Your task to perform on an android device: Search for "dell alienware" on newegg.com, select the first entry, add it to the cart, then select checkout. Image 0: 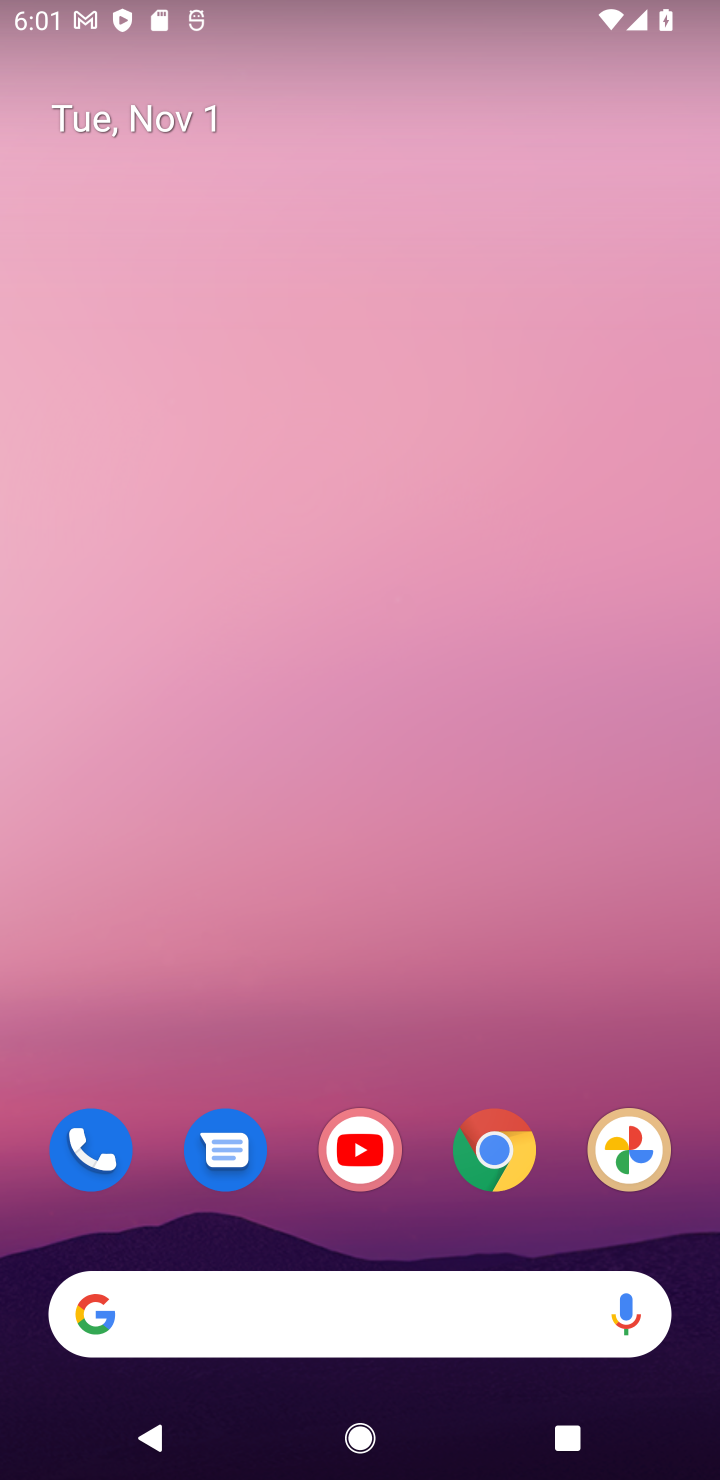
Step 0: click (498, 1163)
Your task to perform on an android device: Search for "dell alienware" on newegg.com, select the first entry, add it to the cart, then select checkout. Image 1: 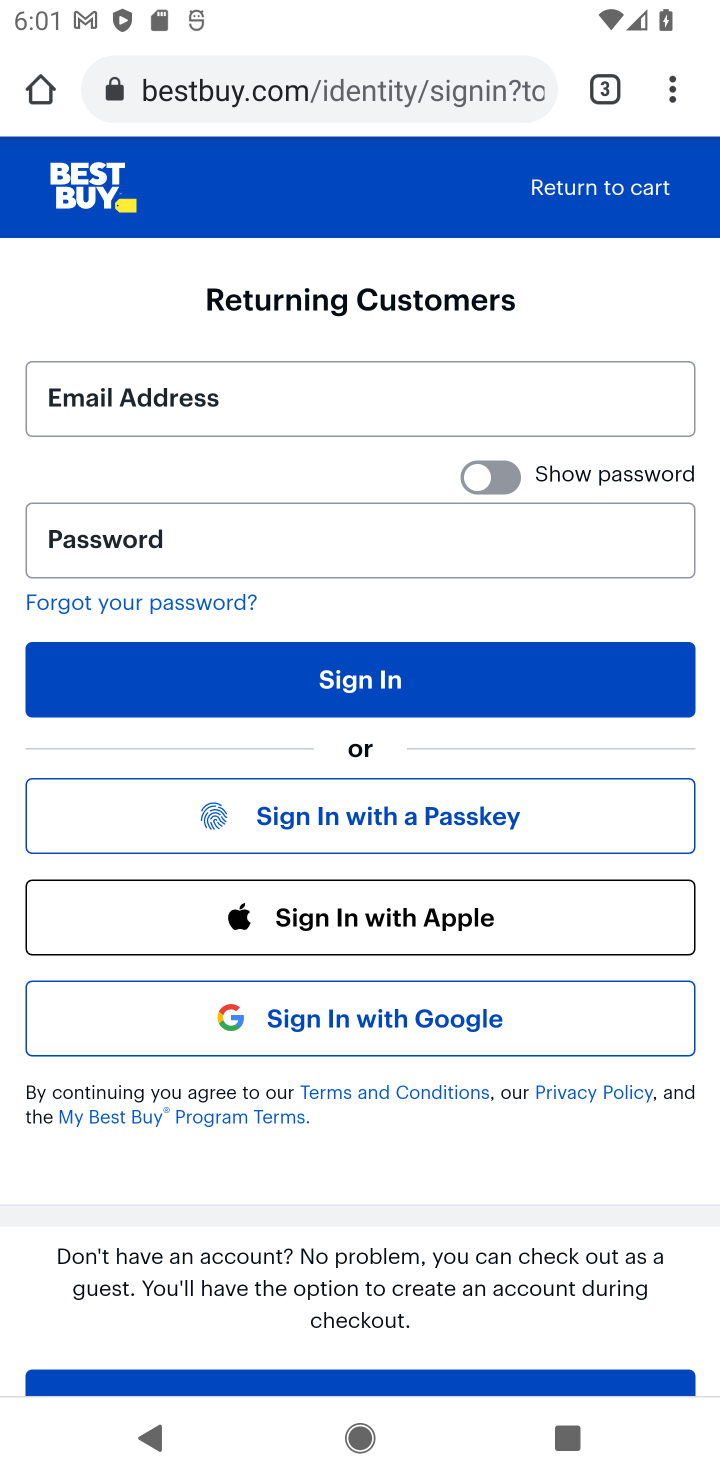
Step 1: click (601, 79)
Your task to perform on an android device: Search for "dell alienware" on newegg.com, select the first entry, add it to the cart, then select checkout. Image 2: 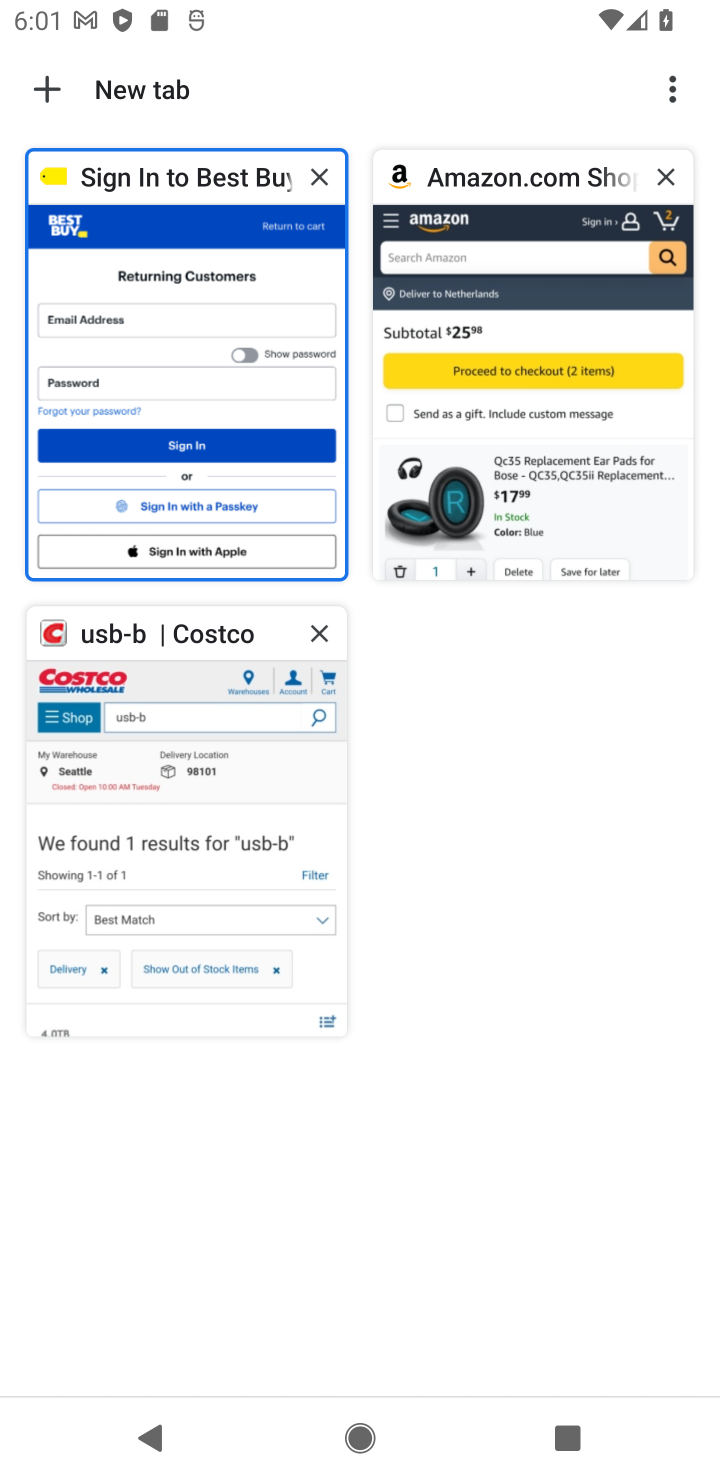
Step 2: click (53, 91)
Your task to perform on an android device: Search for "dell alienware" on newegg.com, select the first entry, add it to the cart, then select checkout. Image 3: 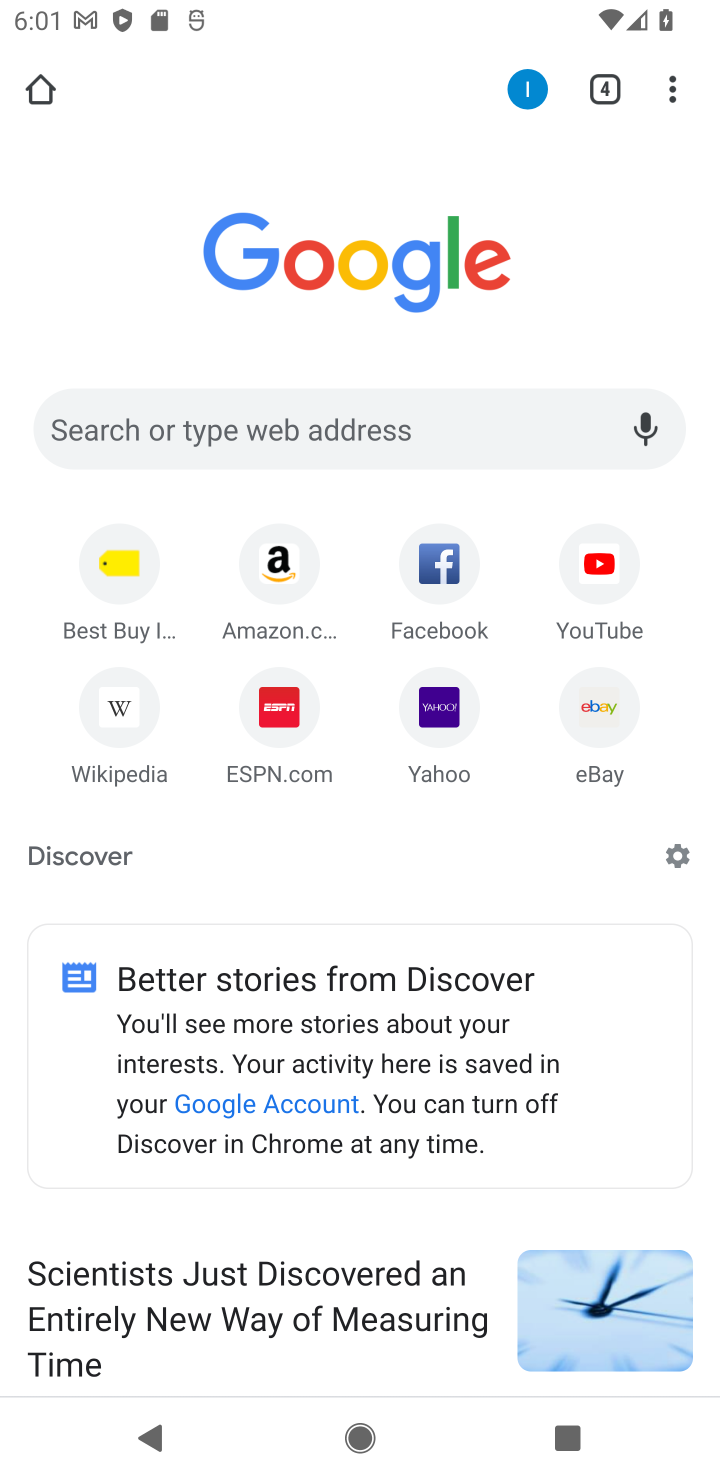
Step 3: click (549, 440)
Your task to perform on an android device: Search for "dell alienware" on newegg.com, select the first entry, add it to the cart, then select checkout. Image 4: 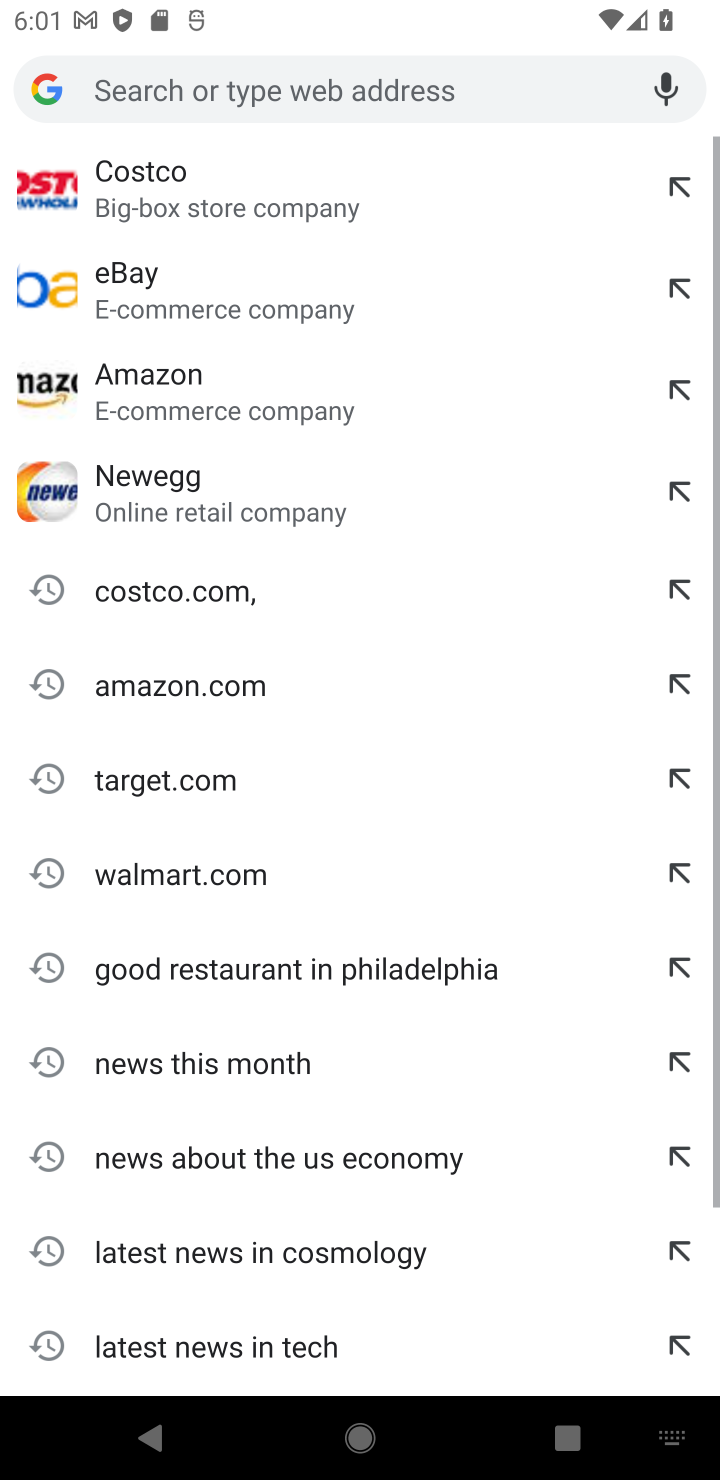
Step 4: type "newegg"
Your task to perform on an android device: Search for "dell alienware" on newegg.com, select the first entry, add it to the cart, then select checkout. Image 5: 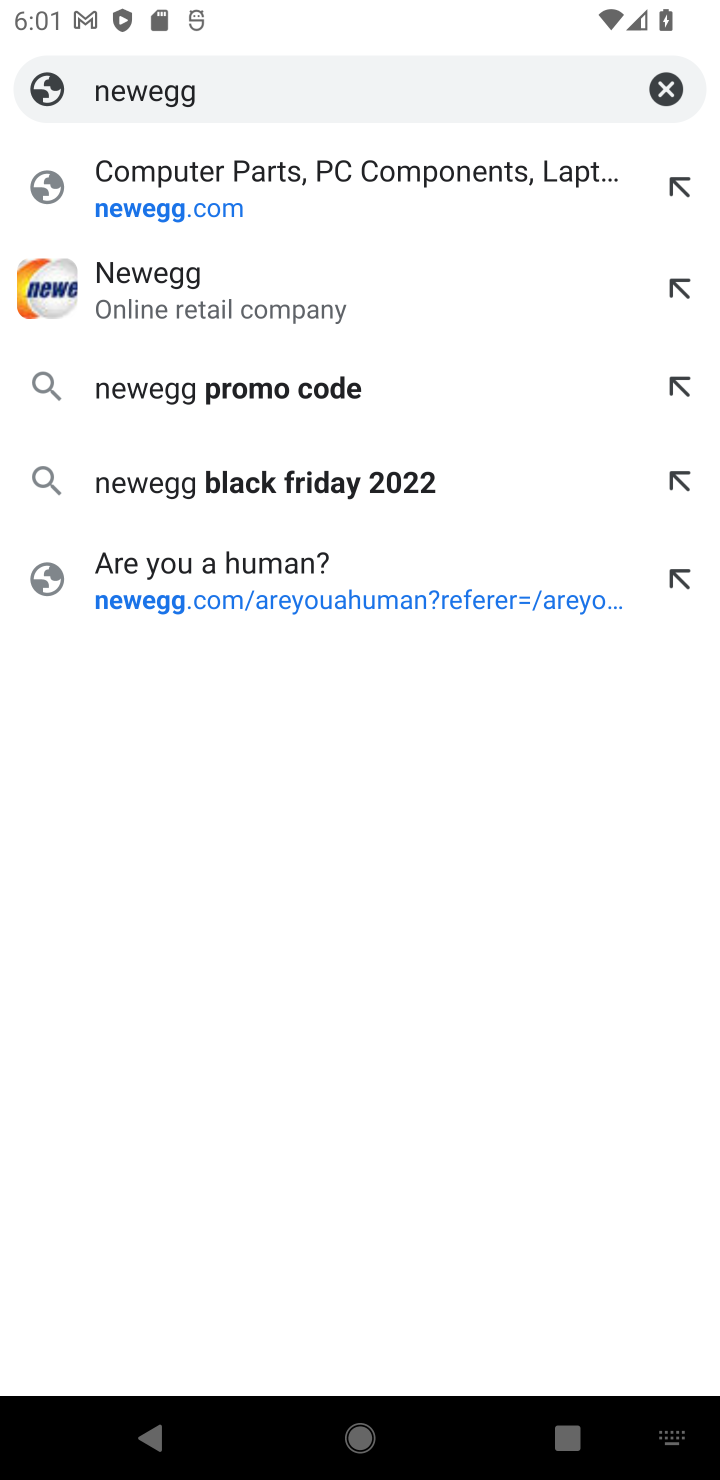
Step 5: click (181, 282)
Your task to perform on an android device: Search for "dell alienware" on newegg.com, select the first entry, add it to the cart, then select checkout. Image 6: 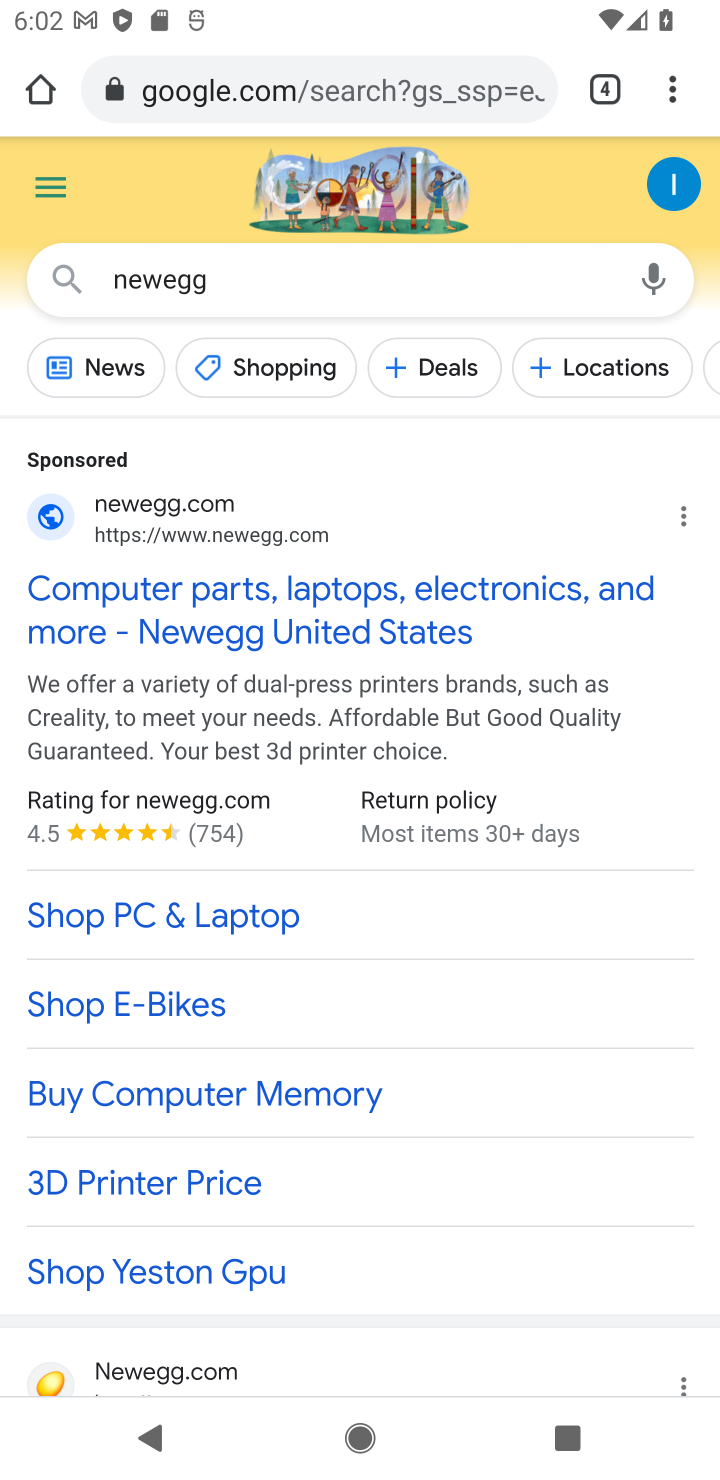
Step 6: drag from (339, 1243) to (533, 581)
Your task to perform on an android device: Search for "dell alienware" on newegg.com, select the first entry, add it to the cart, then select checkout. Image 7: 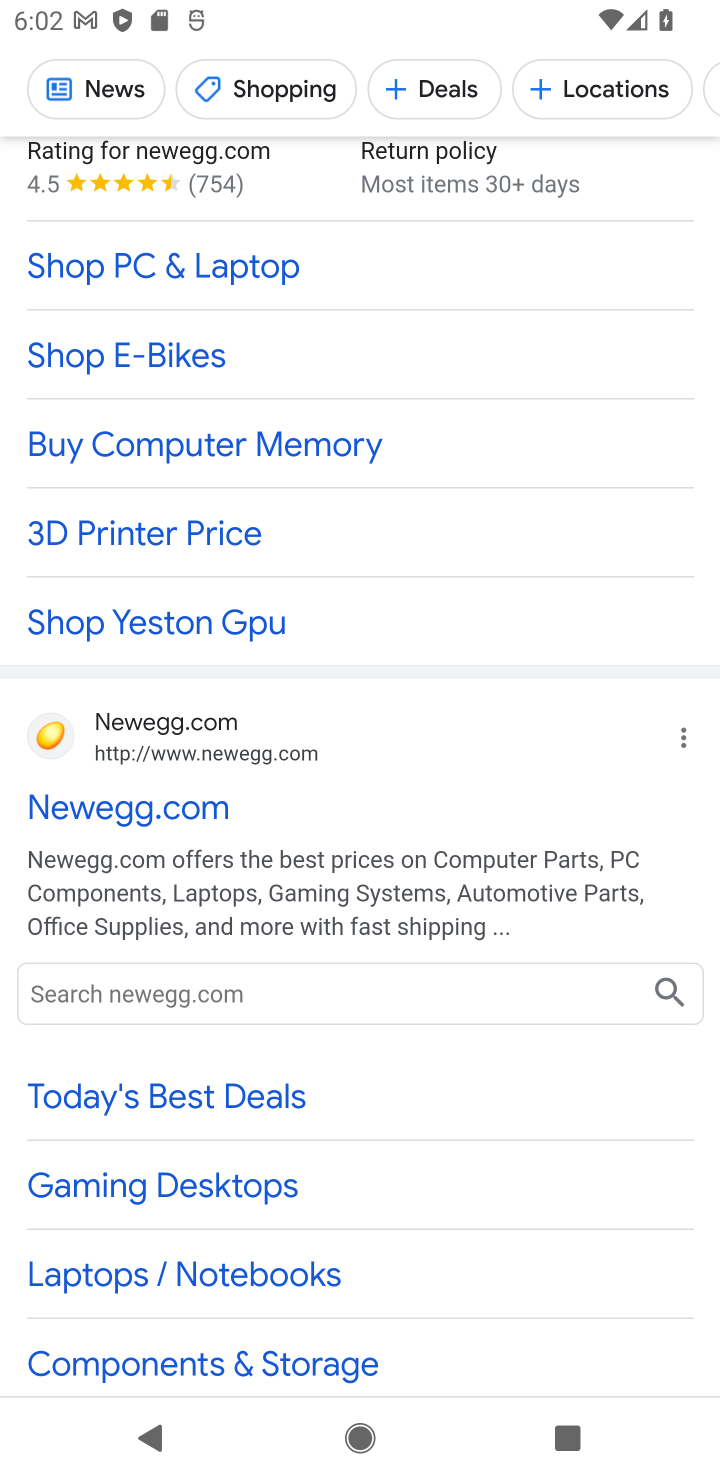
Step 7: click (214, 985)
Your task to perform on an android device: Search for "dell alienware" on newegg.com, select the first entry, add it to the cart, then select checkout. Image 8: 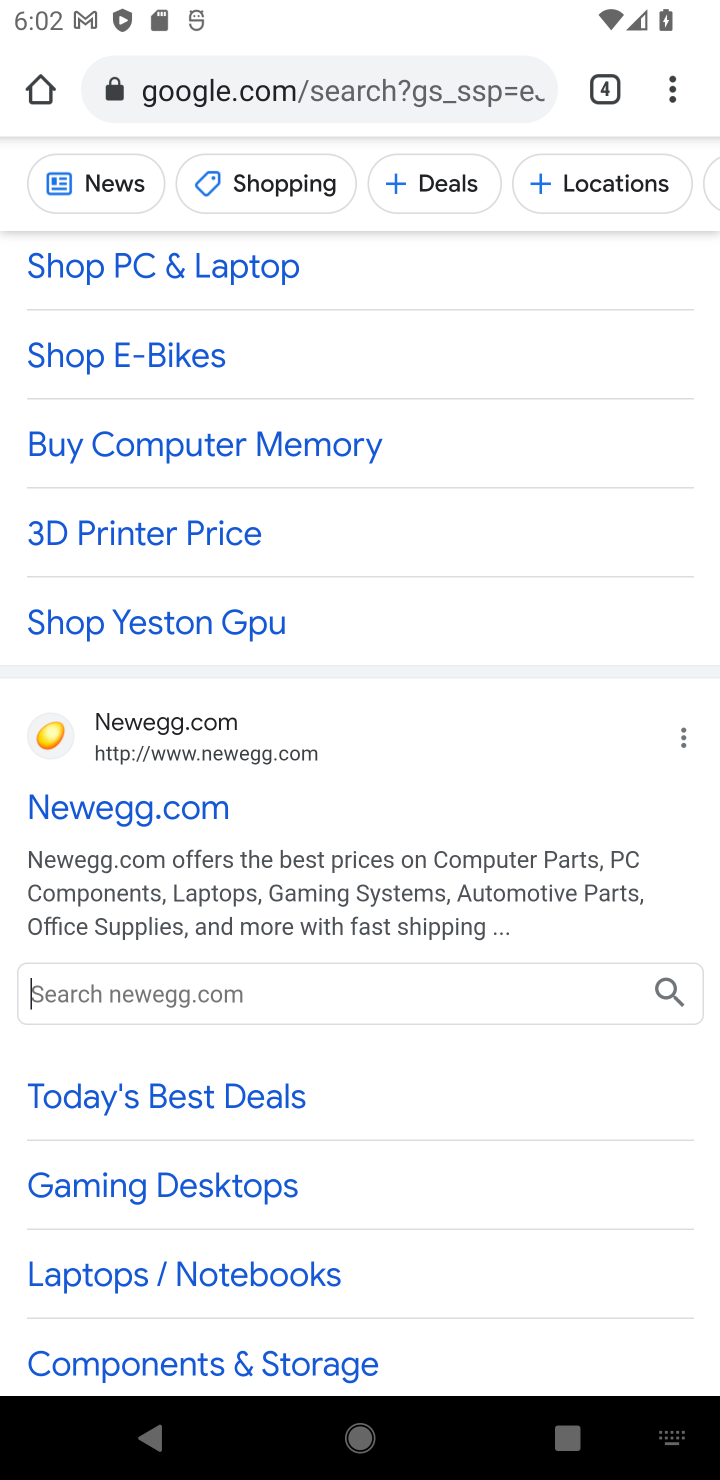
Step 8: type "dell alienware"
Your task to perform on an android device: Search for "dell alienware" on newegg.com, select the first entry, add it to the cart, then select checkout. Image 9: 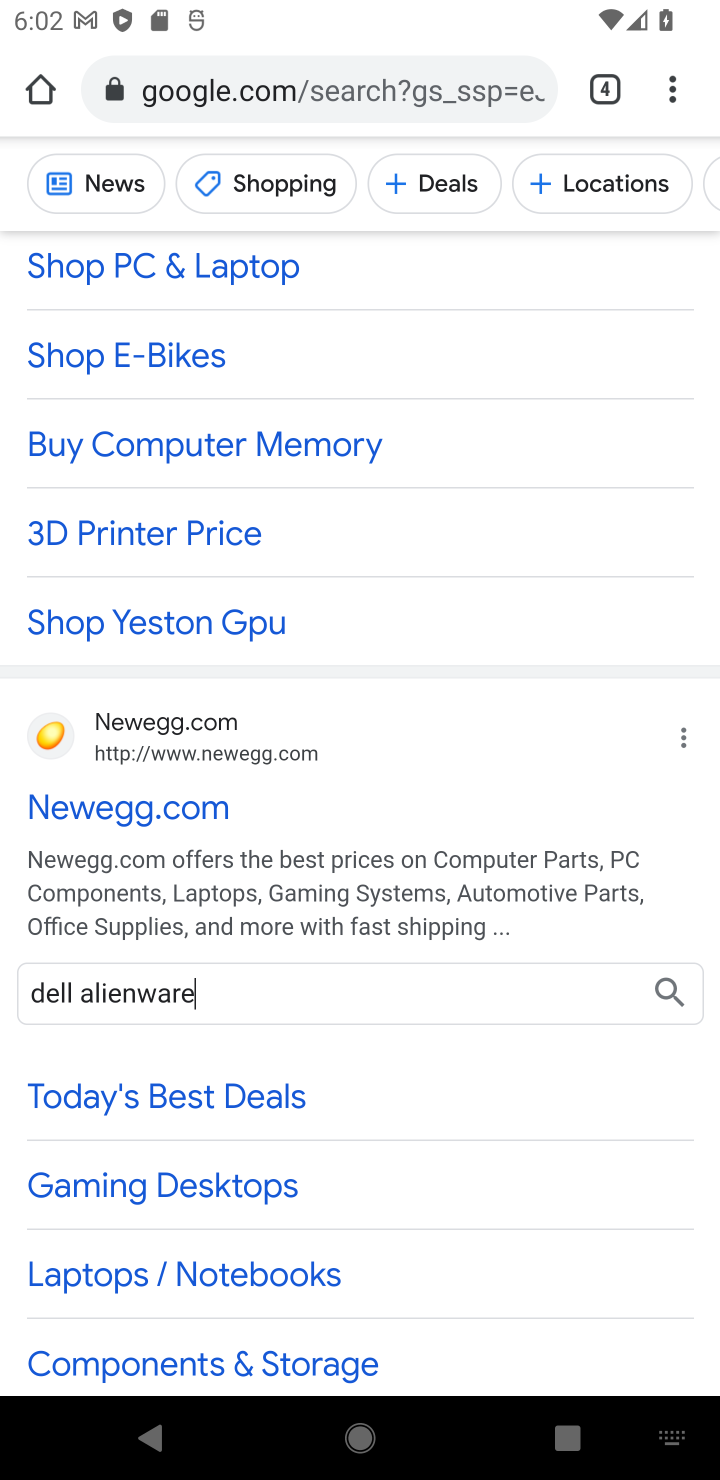
Step 9: click (673, 989)
Your task to perform on an android device: Search for "dell alienware" on newegg.com, select the first entry, add it to the cart, then select checkout. Image 10: 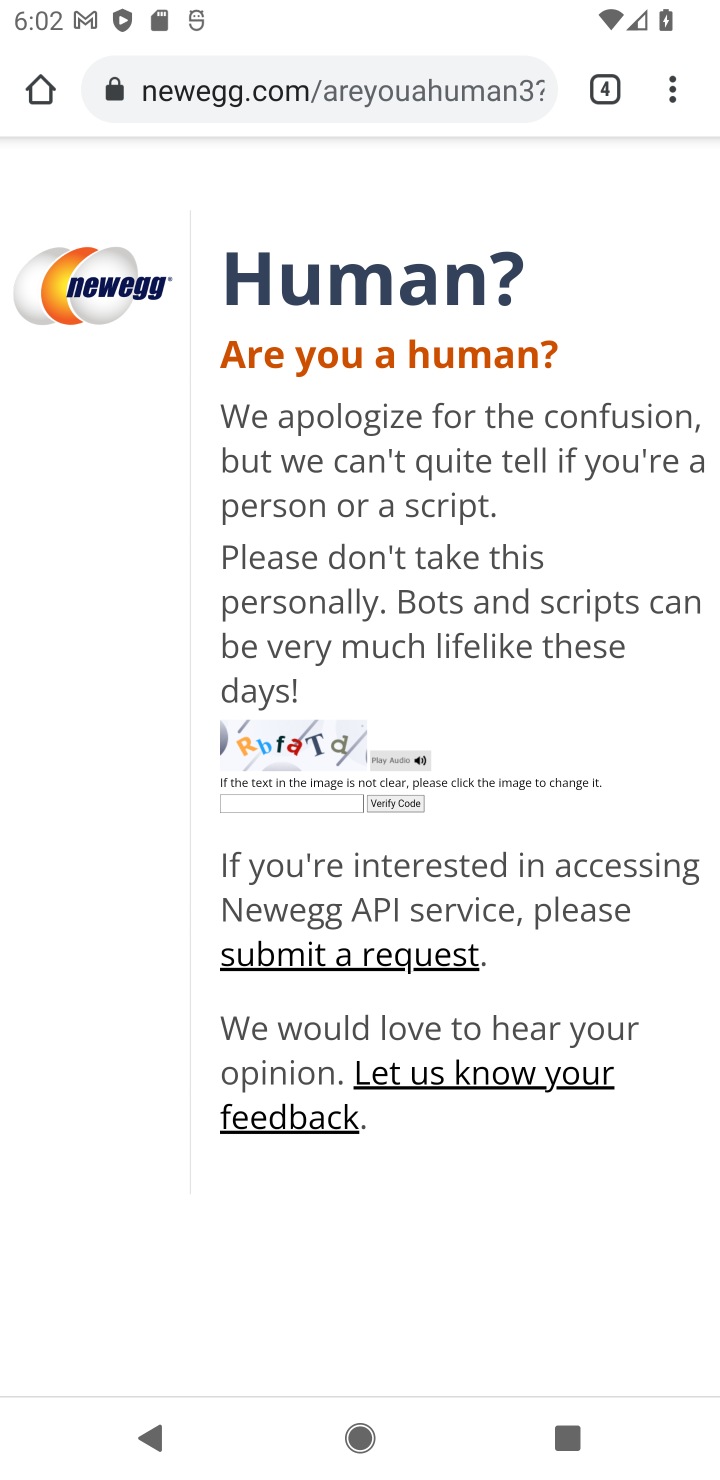
Step 10: click (321, 806)
Your task to perform on an android device: Search for "dell alienware" on newegg.com, select the first entry, add it to the cart, then select checkout. Image 11: 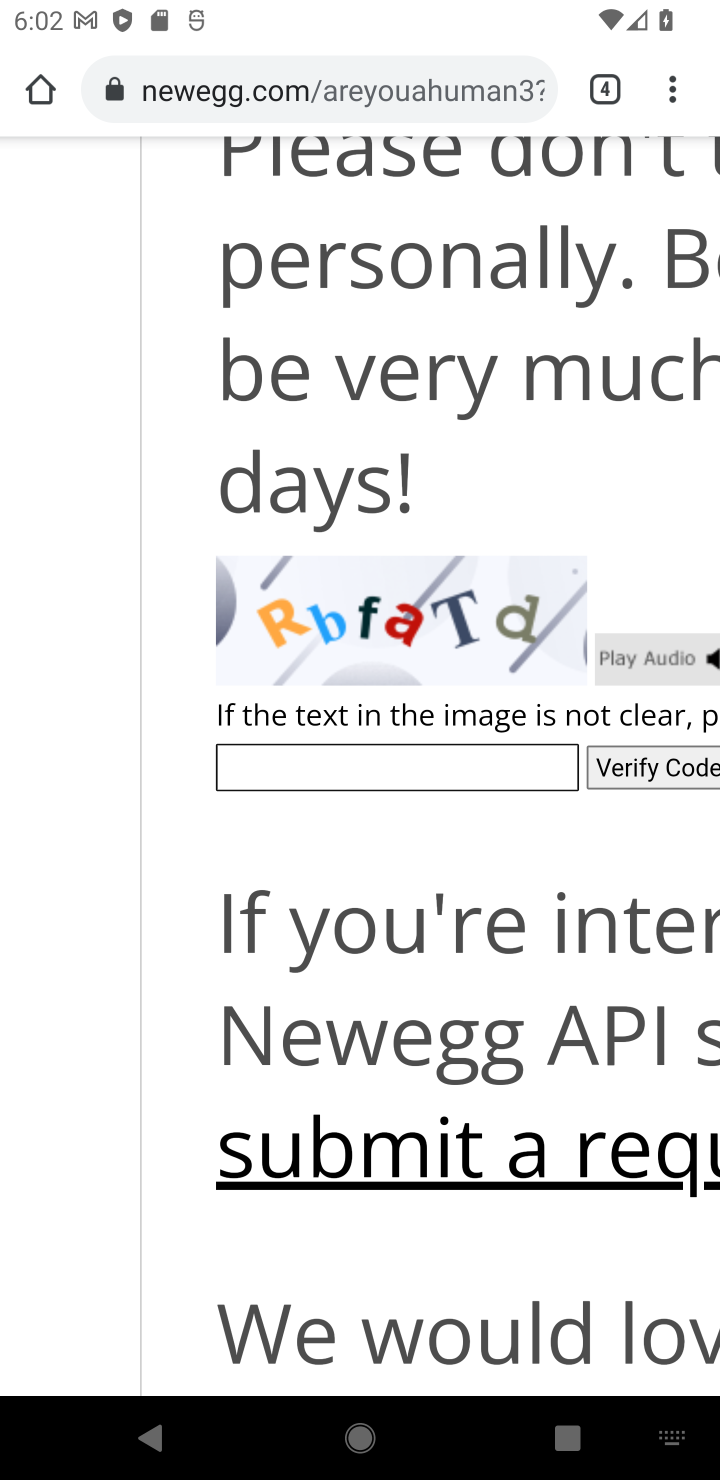
Step 11: type "RbfaTd"
Your task to perform on an android device: Search for "dell alienware" on newegg.com, select the first entry, add it to the cart, then select checkout. Image 12: 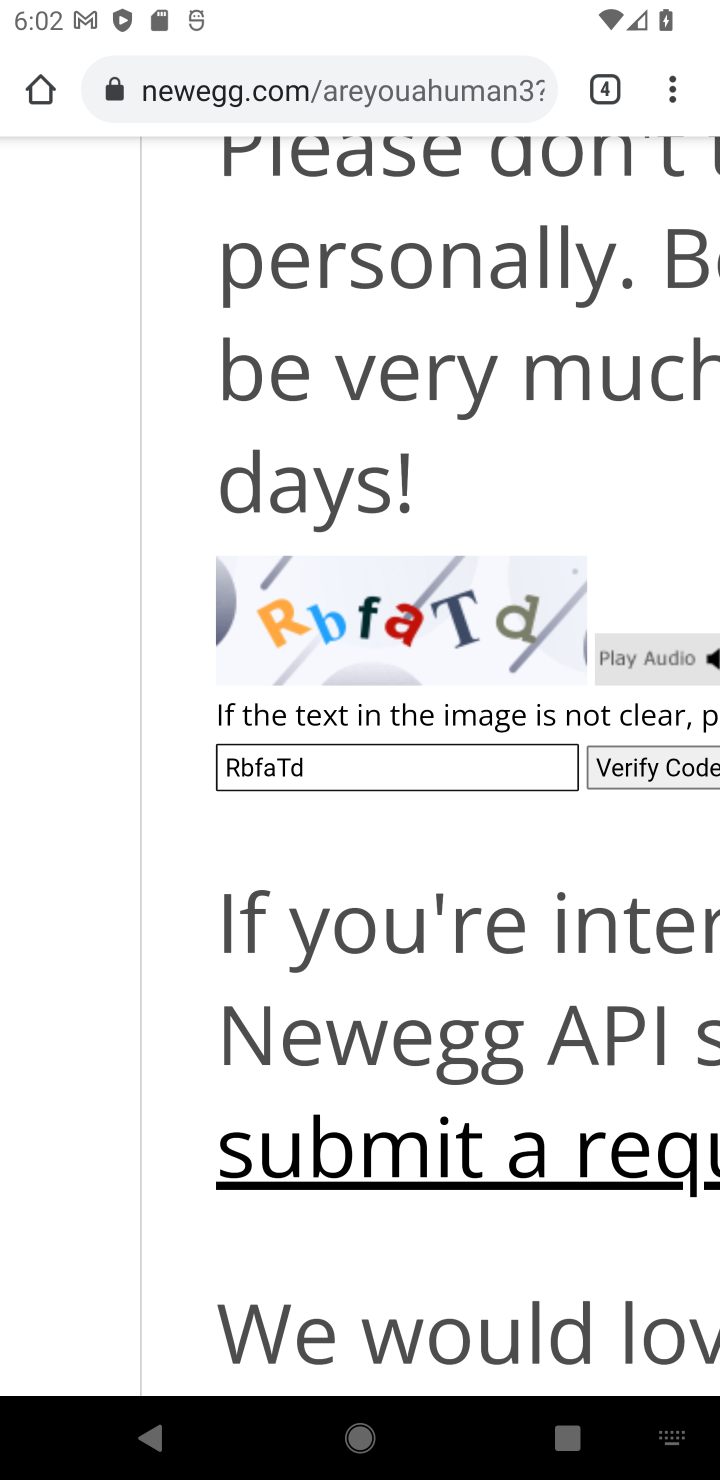
Step 12: click (665, 766)
Your task to perform on an android device: Search for "dell alienware" on newegg.com, select the first entry, add it to the cart, then select checkout. Image 13: 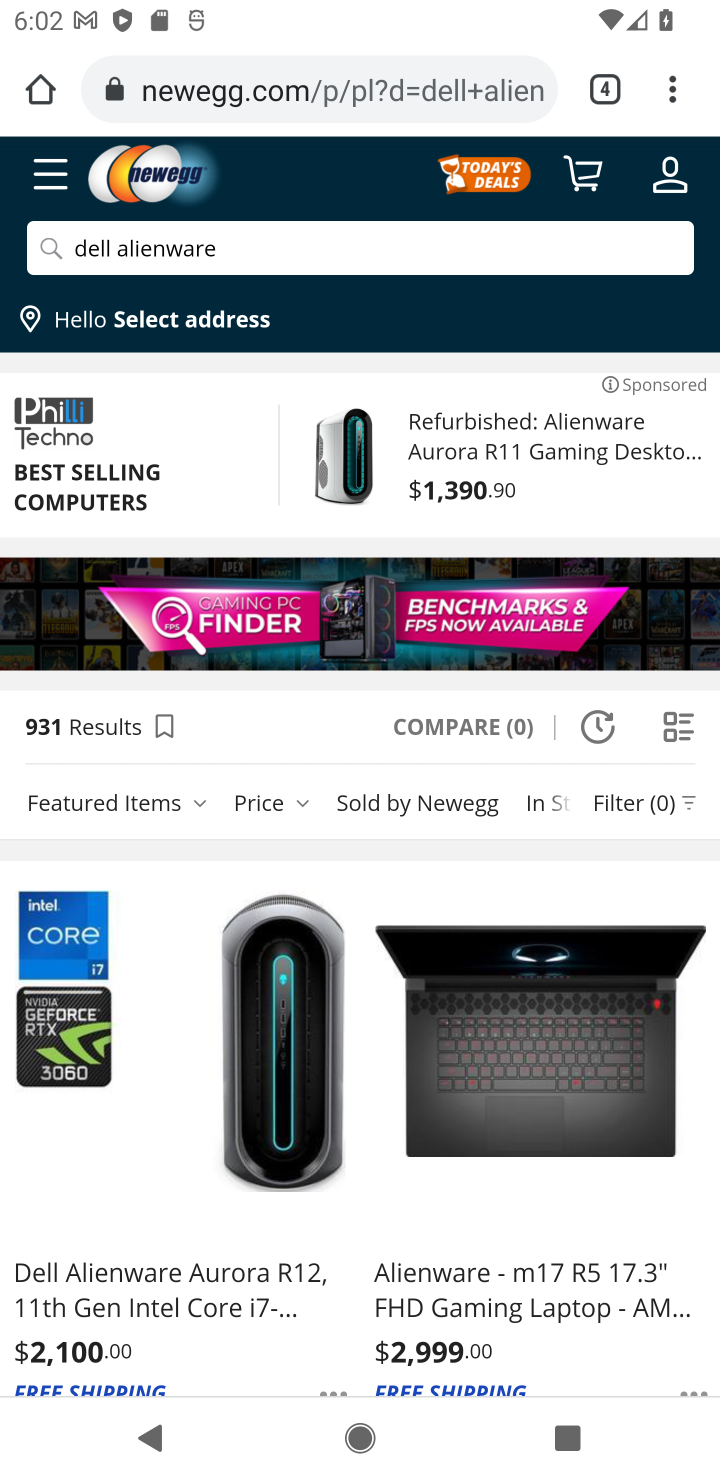
Step 13: click (183, 1295)
Your task to perform on an android device: Search for "dell alienware" on newegg.com, select the first entry, add it to the cart, then select checkout. Image 14: 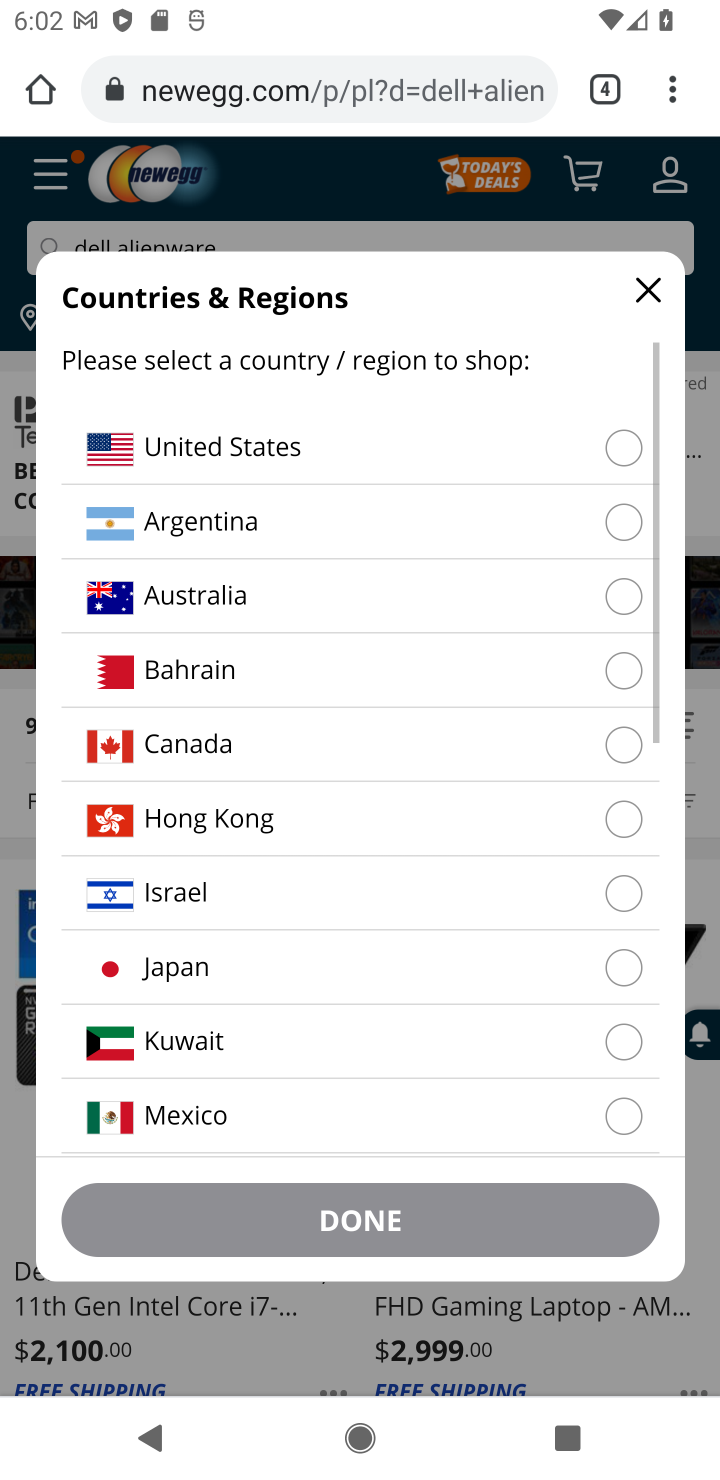
Step 14: click (624, 434)
Your task to perform on an android device: Search for "dell alienware" on newegg.com, select the first entry, add it to the cart, then select checkout. Image 15: 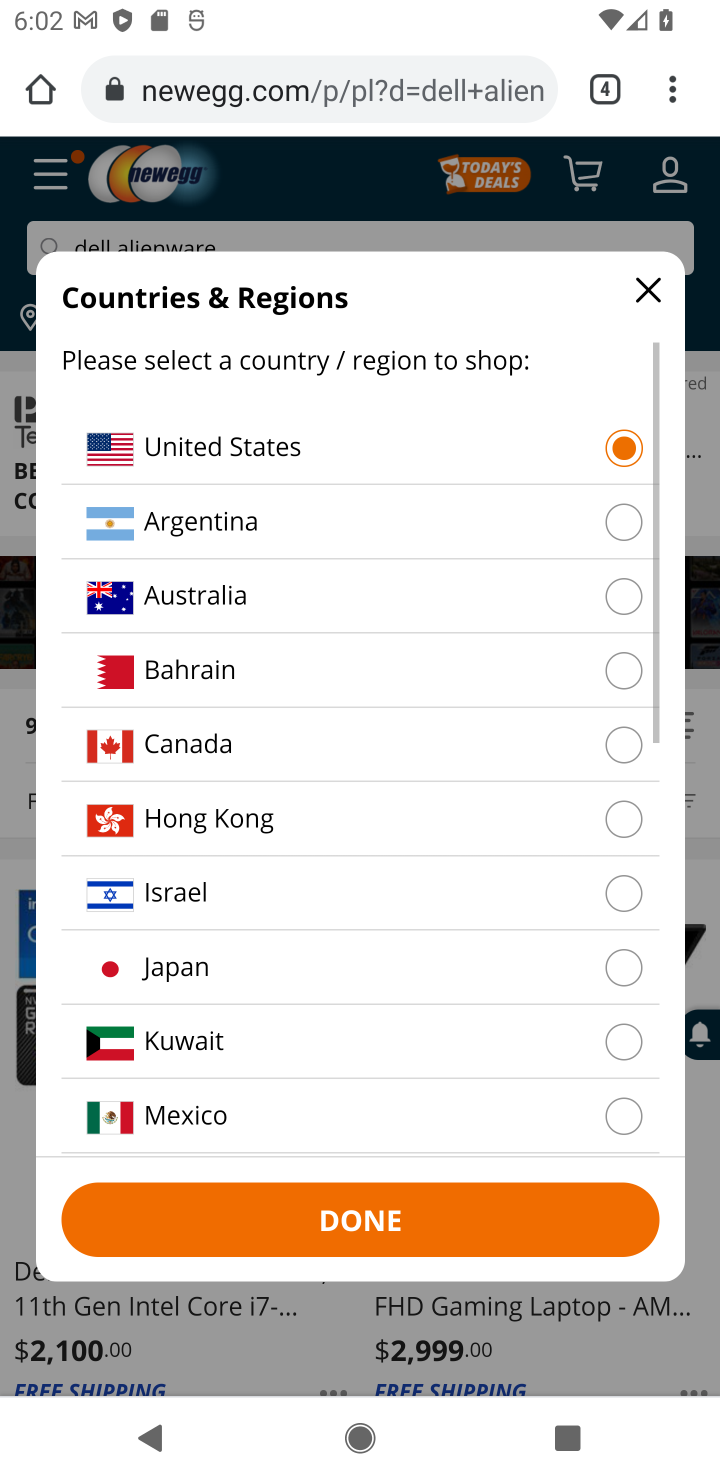
Step 15: click (361, 1228)
Your task to perform on an android device: Search for "dell alienware" on newegg.com, select the first entry, add it to the cart, then select checkout. Image 16: 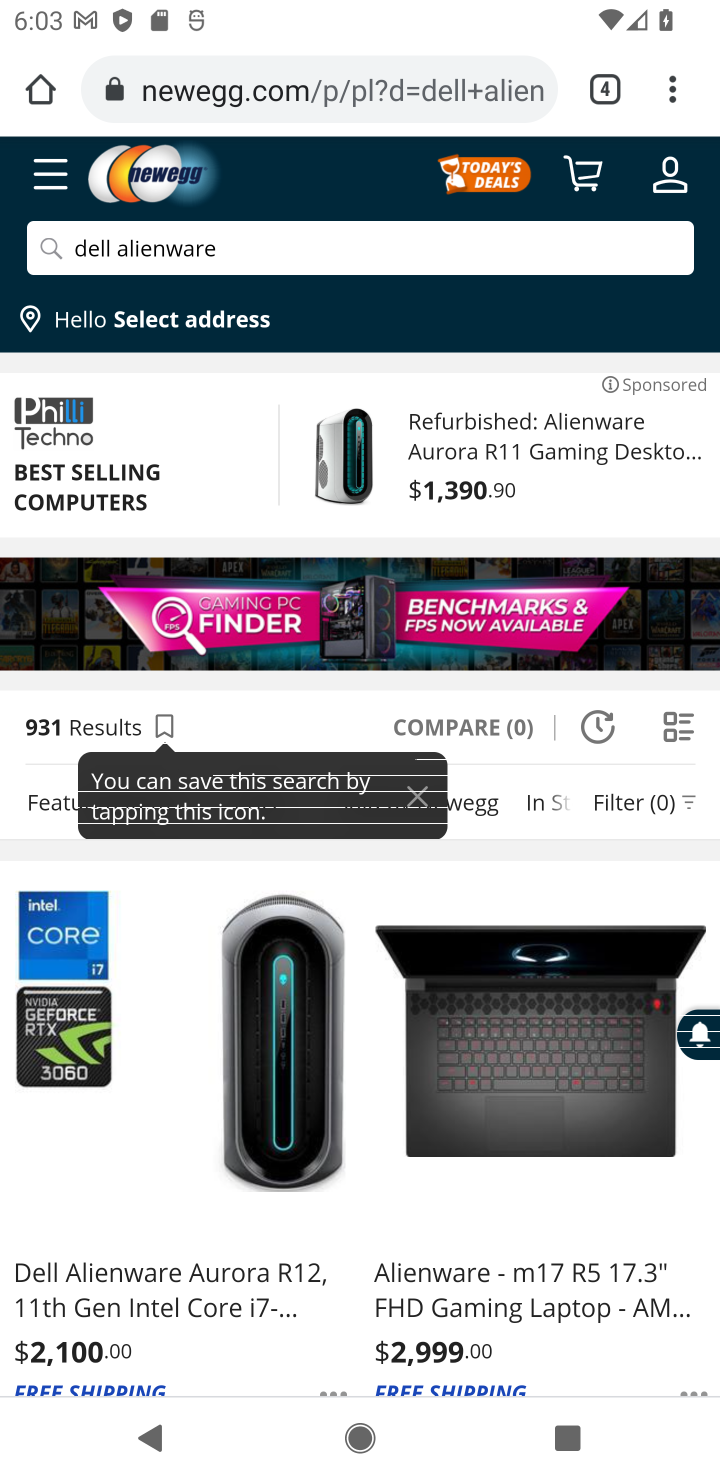
Step 16: click (207, 1279)
Your task to perform on an android device: Search for "dell alienware" on newegg.com, select the first entry, add it to the cart, then select checkout. Image 17: 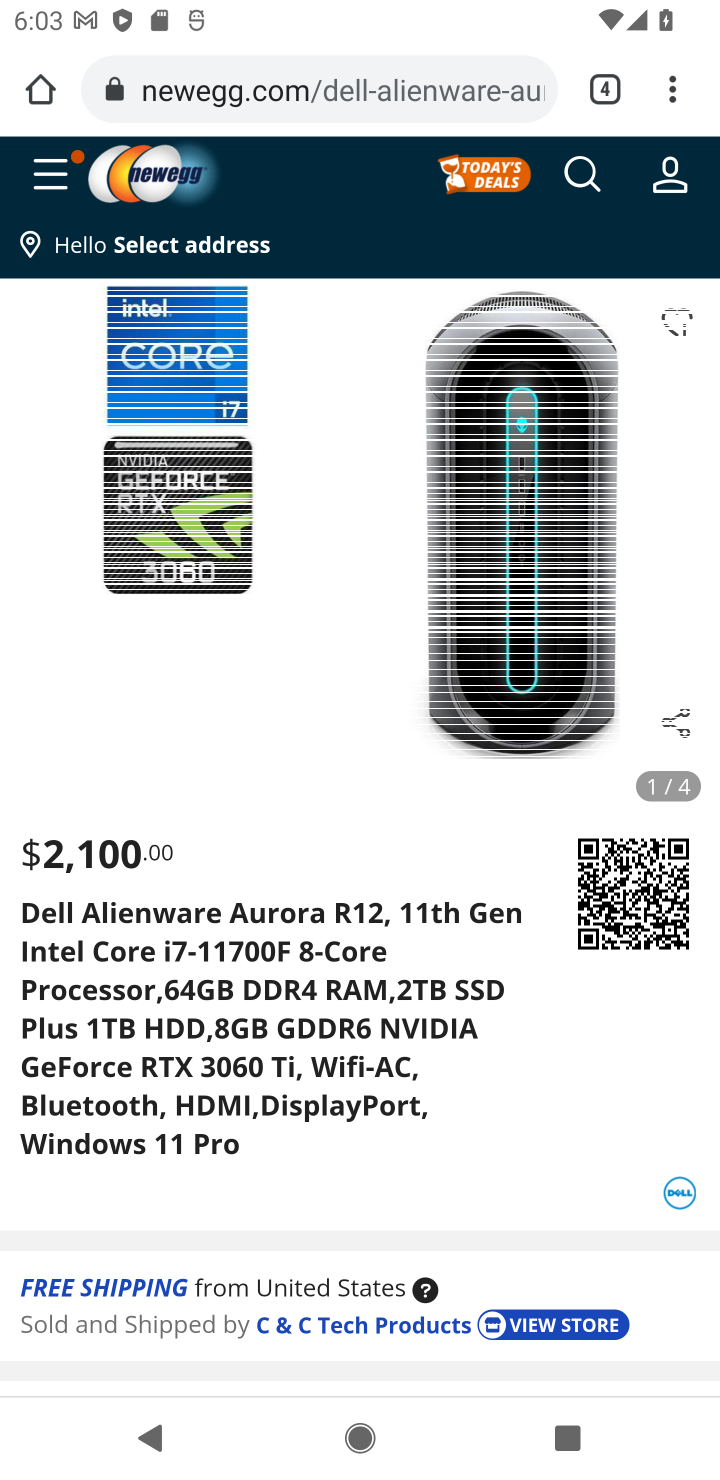
Step 17: click (283, 1348)
Your task to perform on an android device: Search for "dell alienware" on newegg.com, select the first entry, add it to the cart, then select checkout. Image 18: 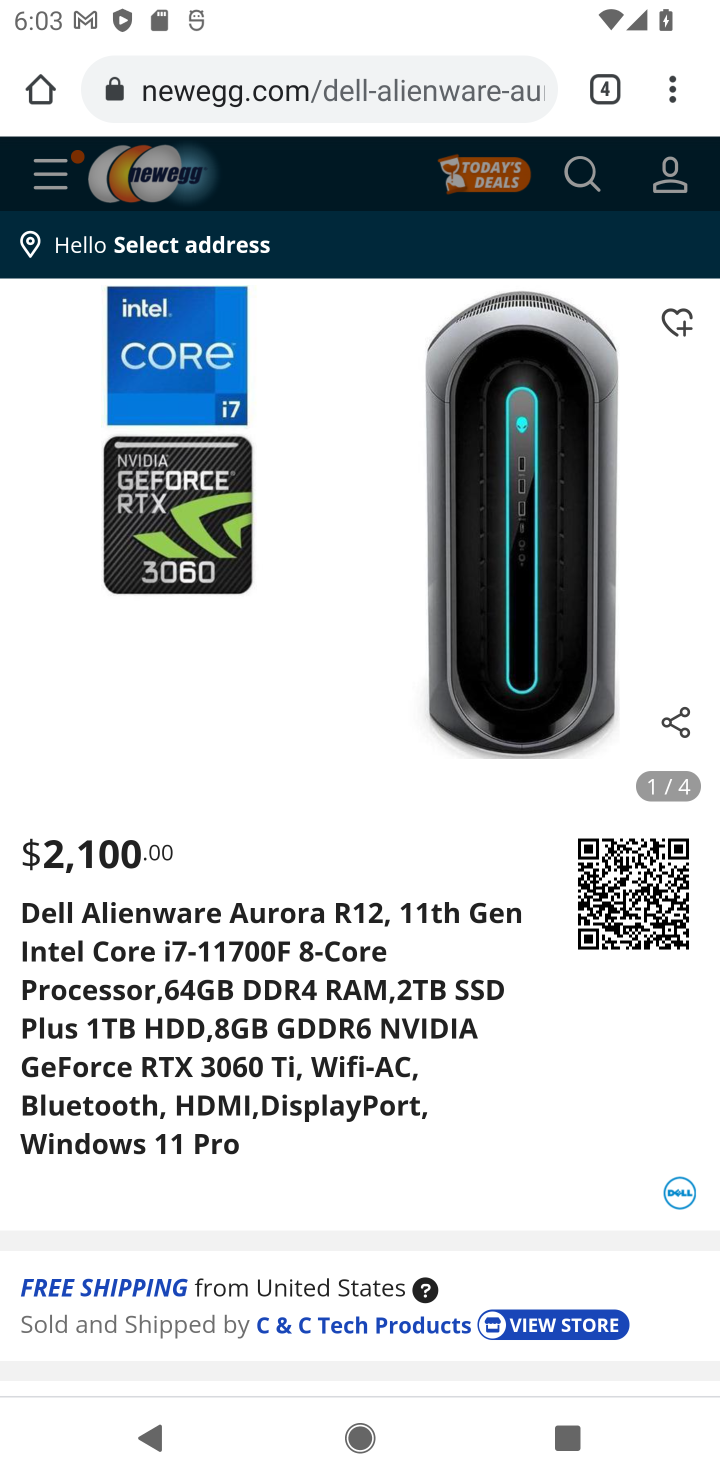
Step 18: click (29, 1351)
Your task to perform on an android device: Search for "dell alienware" on newegg.com, select the first entry, add it to the cart, then select checkout. Image 19: 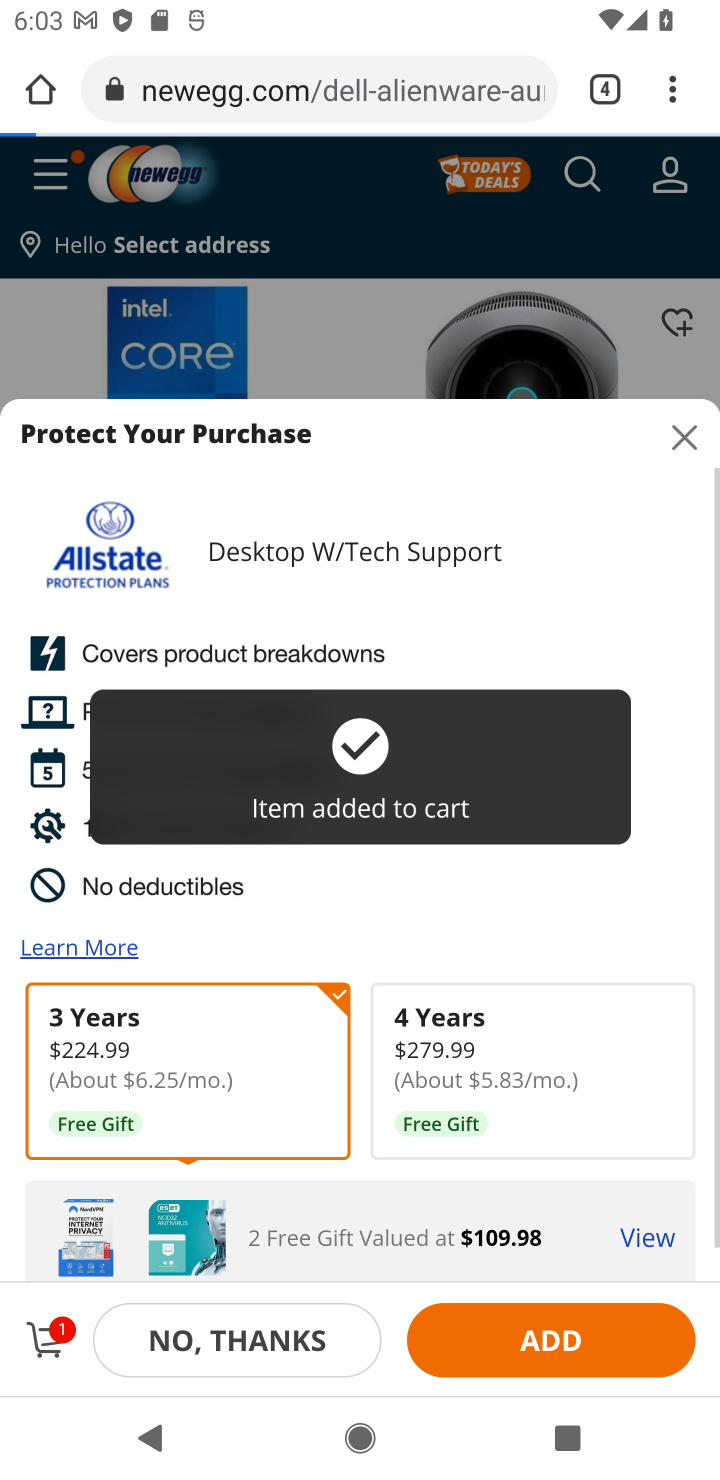
Step 19: click (29, 1351)
Your task to perform on an android device: Search for "dell alienware" on newegg.com, select the first entry, add it to the cart, then select checkout. Image 20: 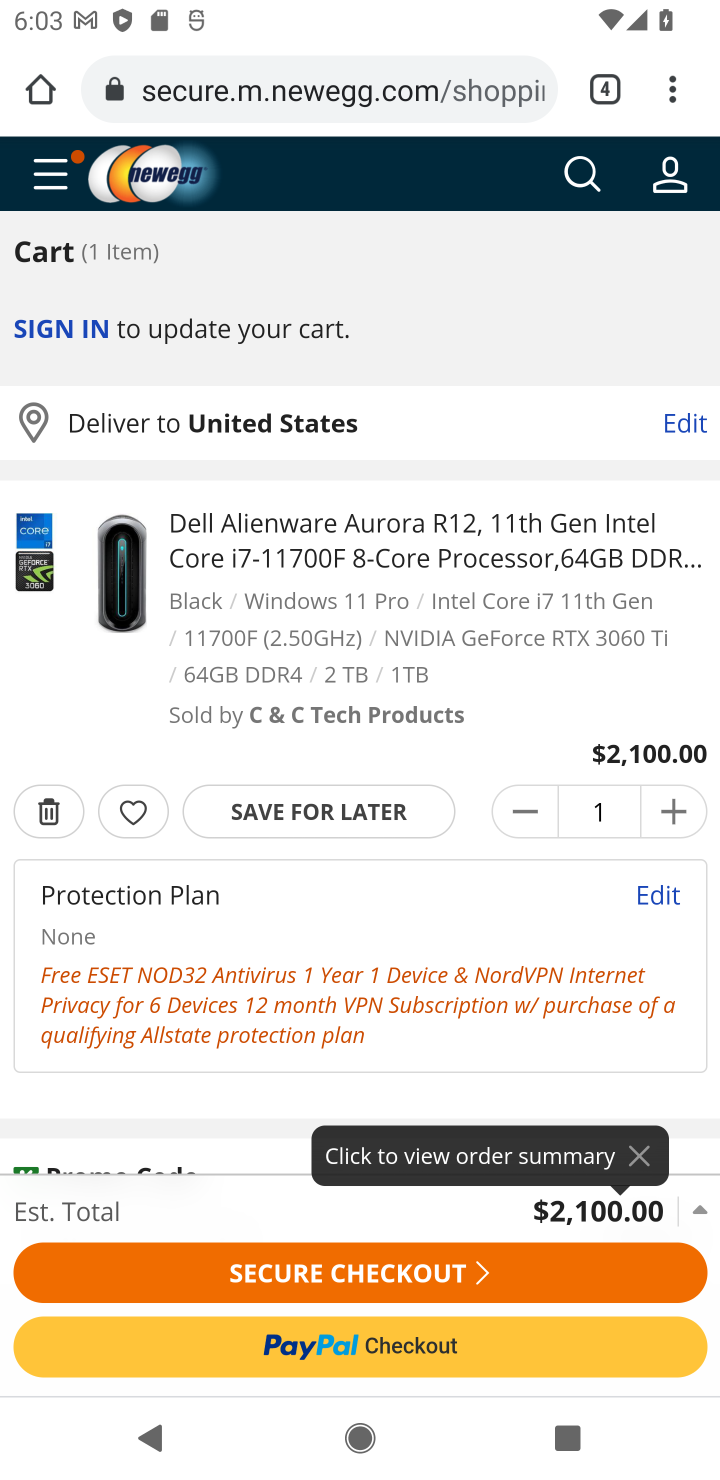
Step 20: click (412, 1287)
Your task to perform on an android device: Search for "dell alienware" on newegg.com, select the first entry, add it to the cart, then select checkout. Image 21: 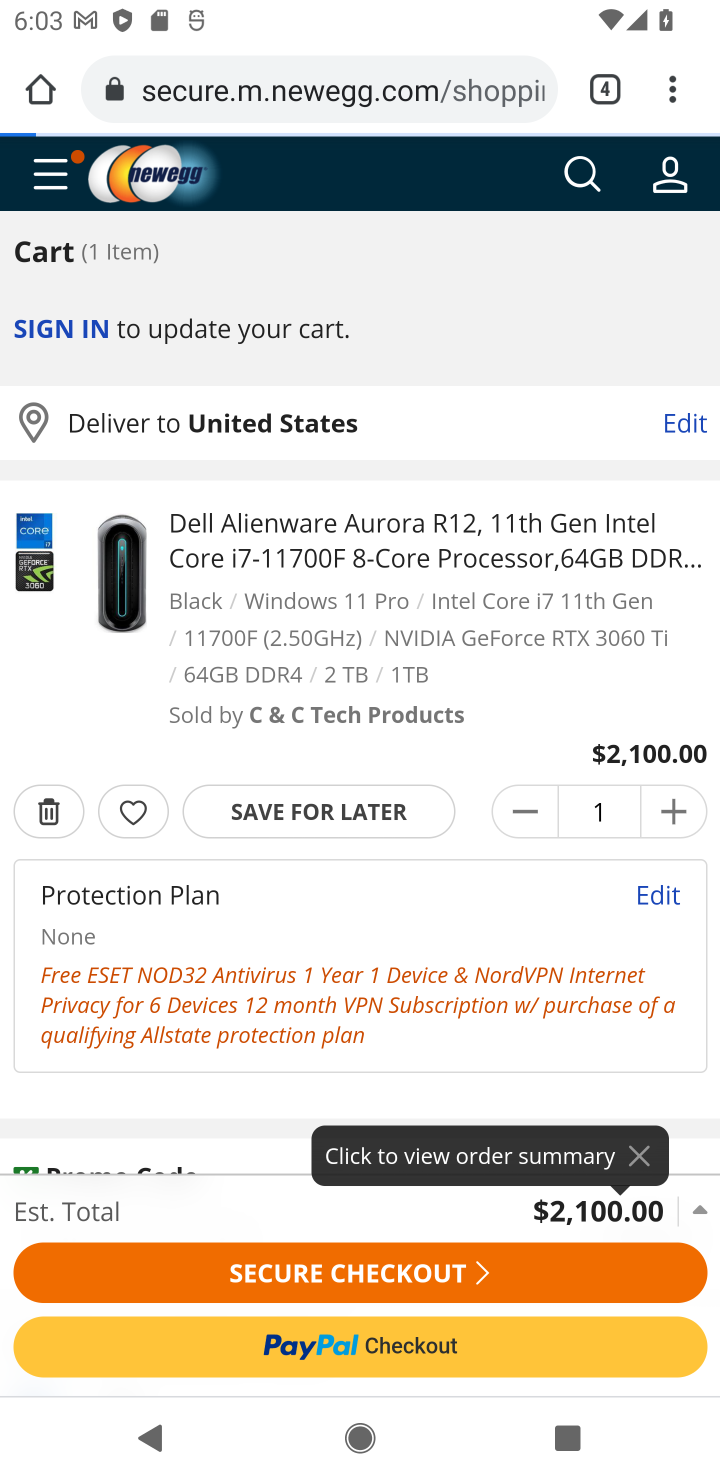
Step 21: click (412, 1287)
Your task to perform on an android device: Search for "dell alienware" on newegg.com, select the first entry, add it to the cart, then select checkout. Image 22: 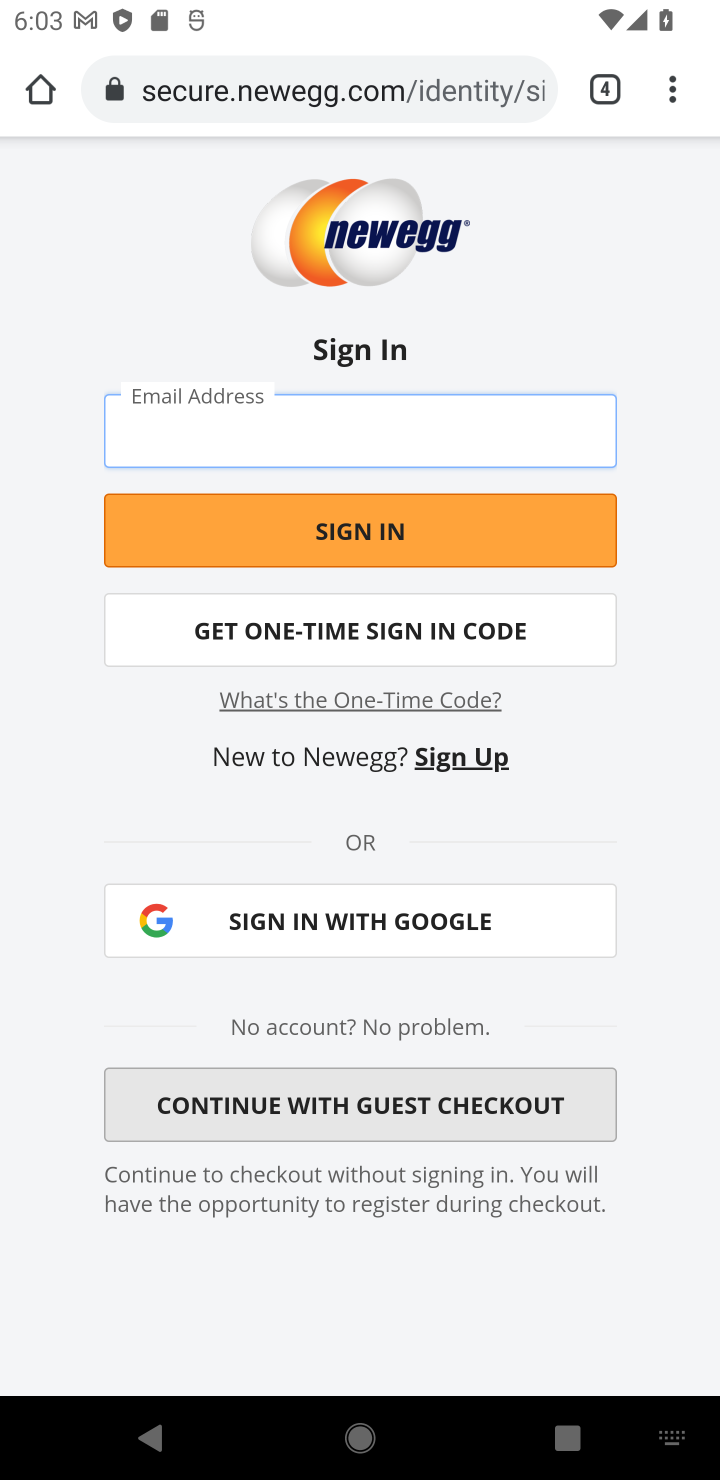
Step 22: task complete